Your task to perform on an android device: change keyboard looks Image 0: 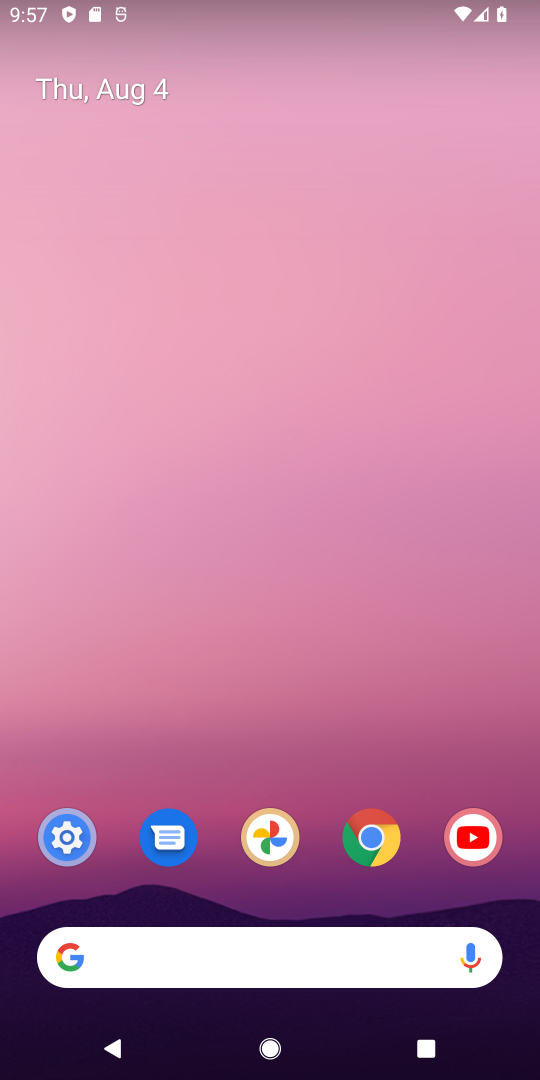
Step 0: press home button
Your task to perform on an android device: change keyboard looks Image 1: 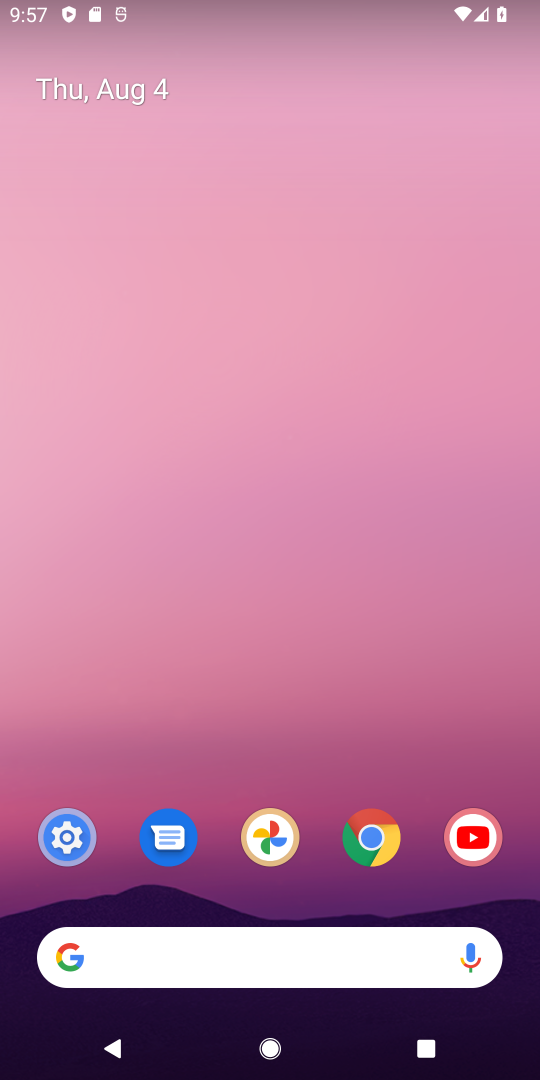
Step 1: drag from (318, 895) to (348, 33)
Your task to perform on an android device: change keyboard looks Image 2: 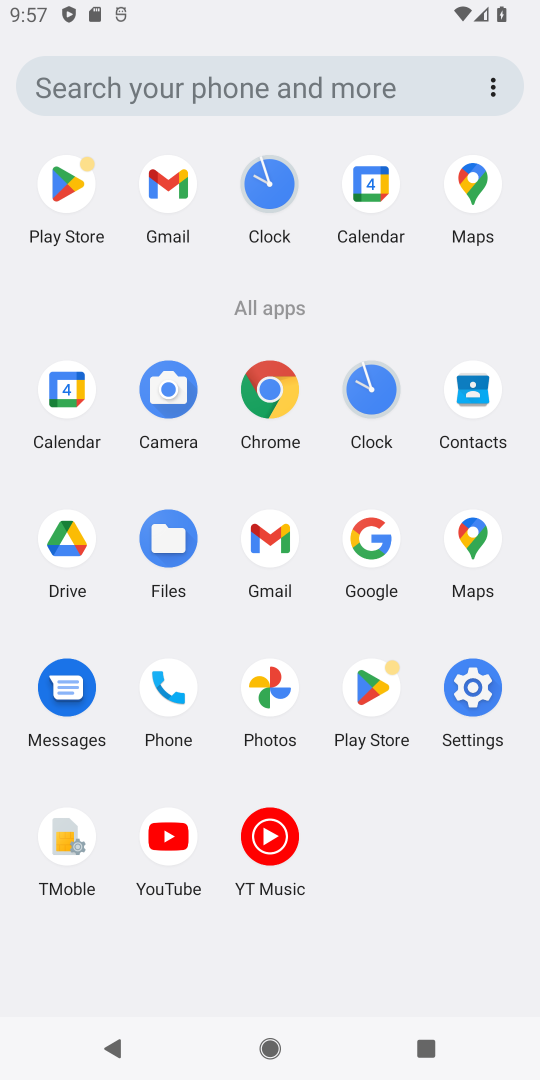
Step 2: click (468, 681)
Your task to perform on an android device: change keyboard looks Image 3: 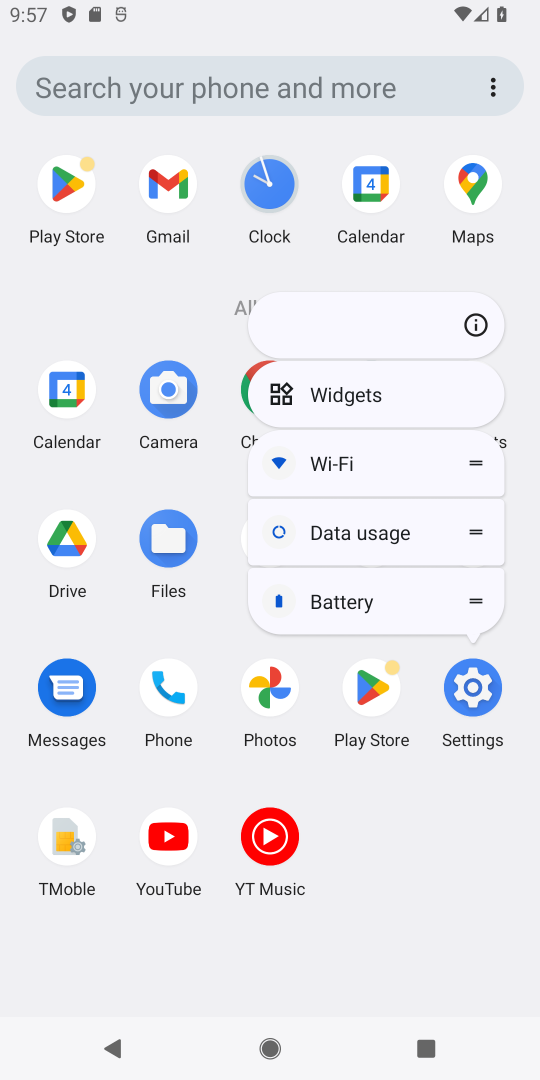
Step 3: click (480, 678)
Your task to perform on an android device: change keyboard looks Image 4: 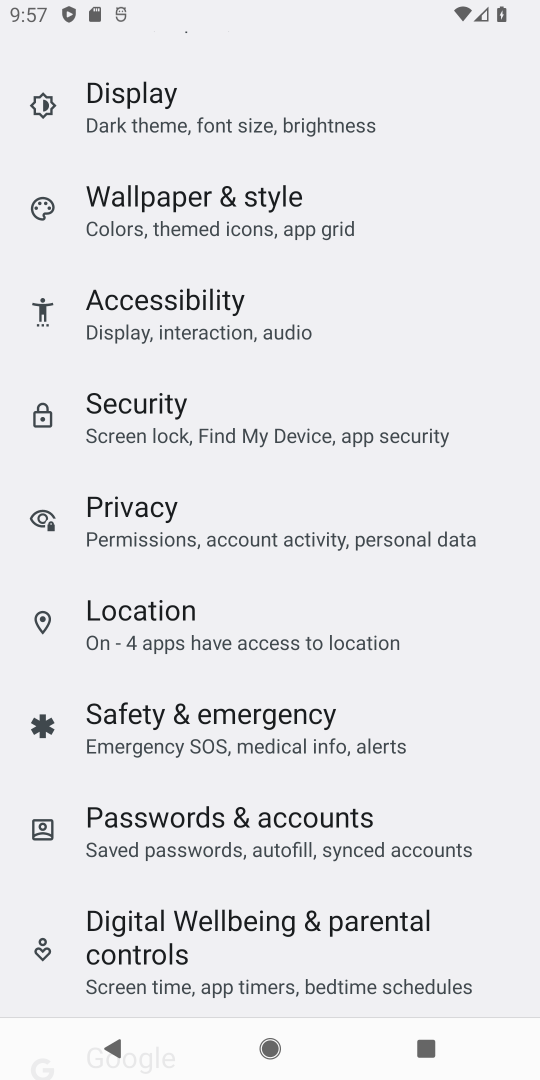
Step 4: drag from (247, 929) to (225, 200)
Your task to perform on an android device: change keyboard looks Image 5: 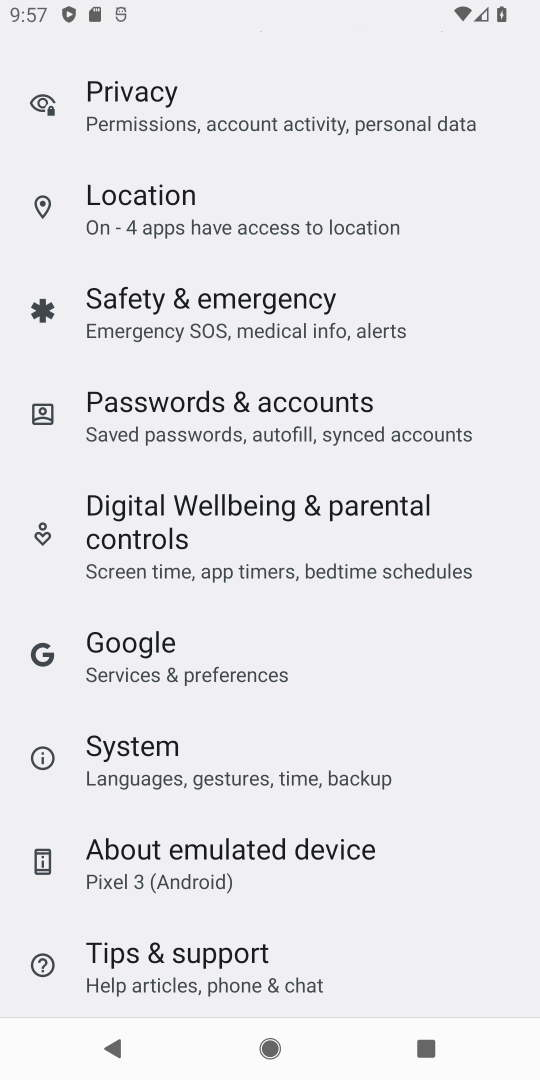
Step 5: click (189, 752)
Your task to perform on an android device: change keyboard looks Image 6: 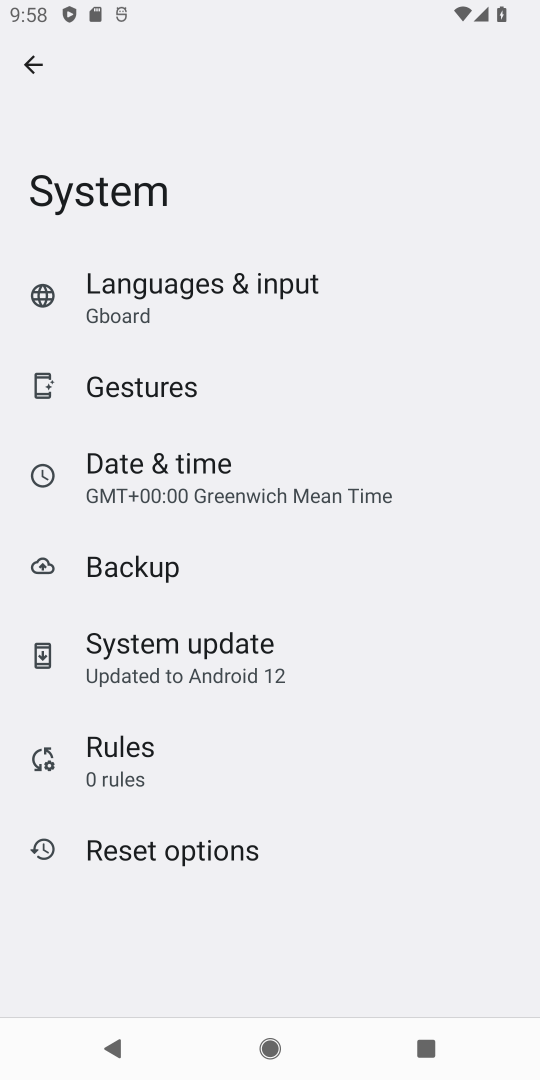
Step 6: click (141, 305)
Your task to perform on an android device: change keyboard looks Image 7: 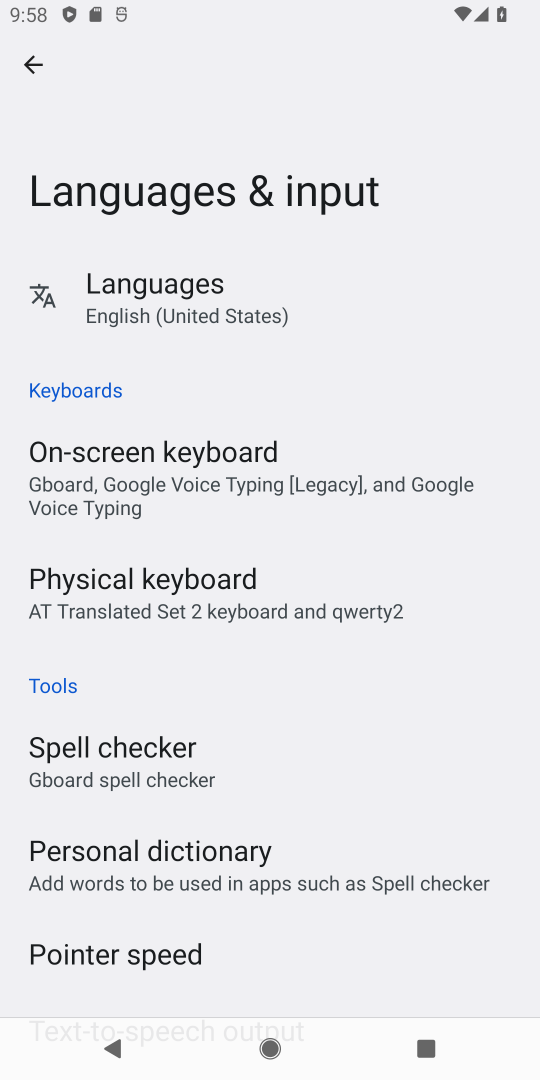
Step 7: click (143, 445)
Your task to perform on an android device: change keyboard looks Image 8: 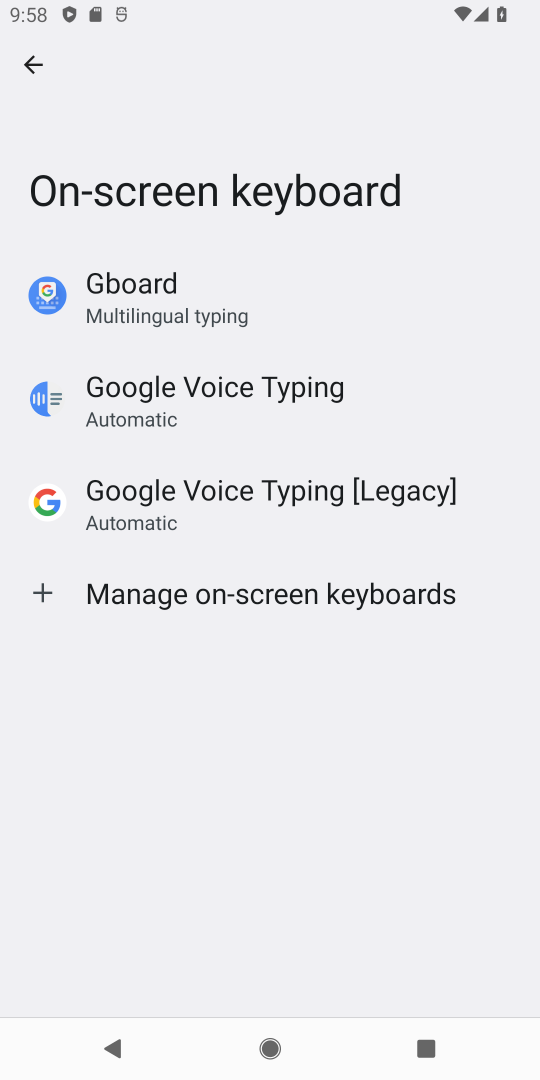
Step 8: click (155, 294)
Your task to perform on an android device: change keyboard looks Image 9: 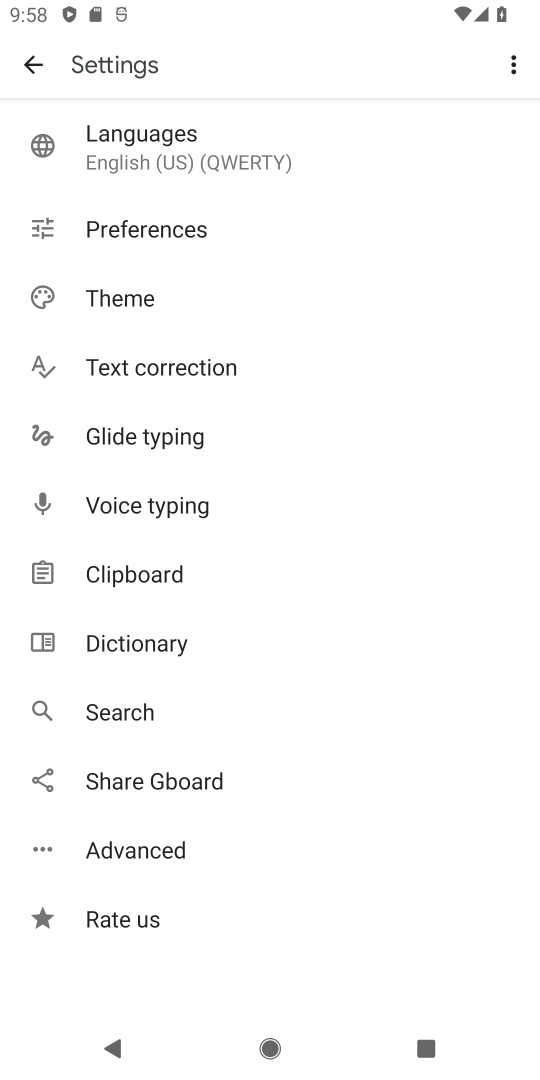
Step 9: click (149, 283)
Your task to perform on an android device: change keyboard looks Image 10: 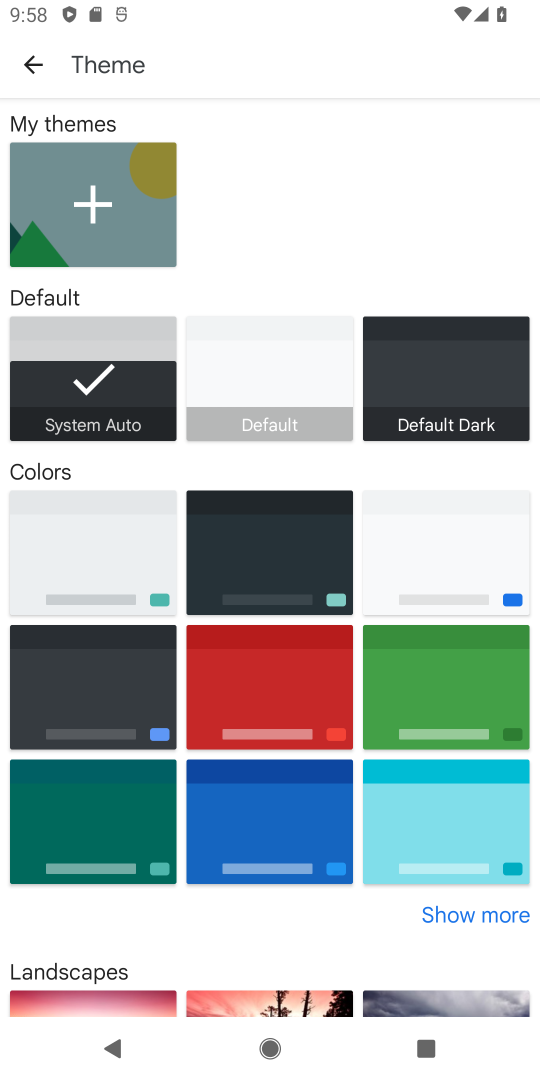
Step 10: click (104, 818)
Your task to perform on an android device: change keyboard looks Image 11: 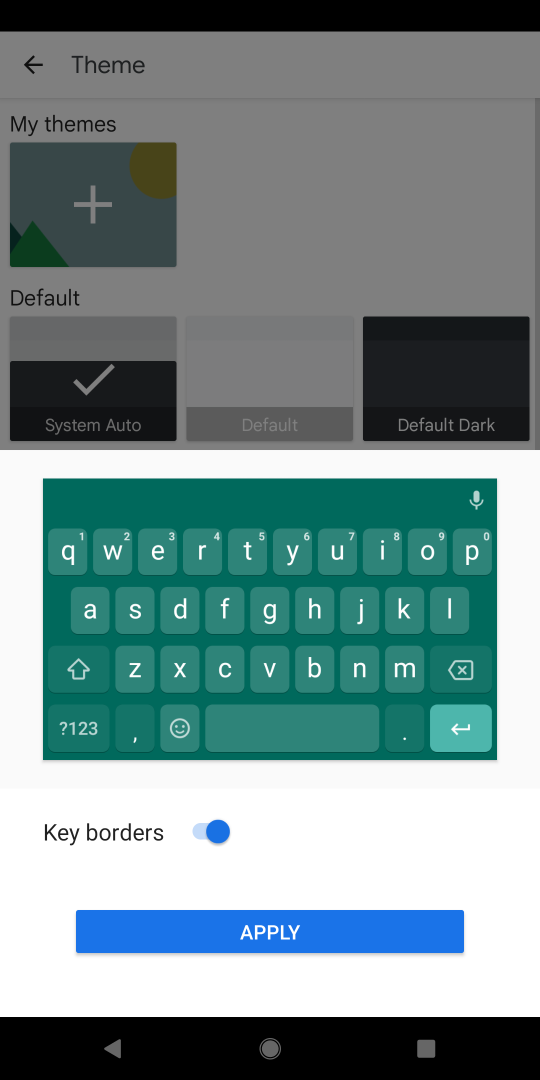
Step 11: click (207, 822)
Your task to perform on an android device: change keyboard looks Image 12: 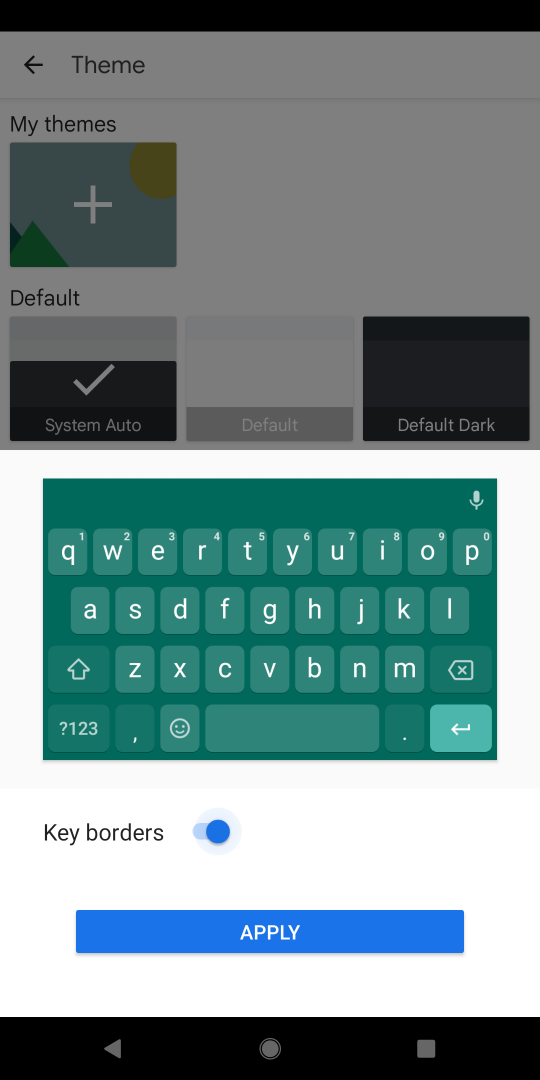
Step 12: click (271, 936)
Your task to perform on an android device: change keyboard looks Image 13: 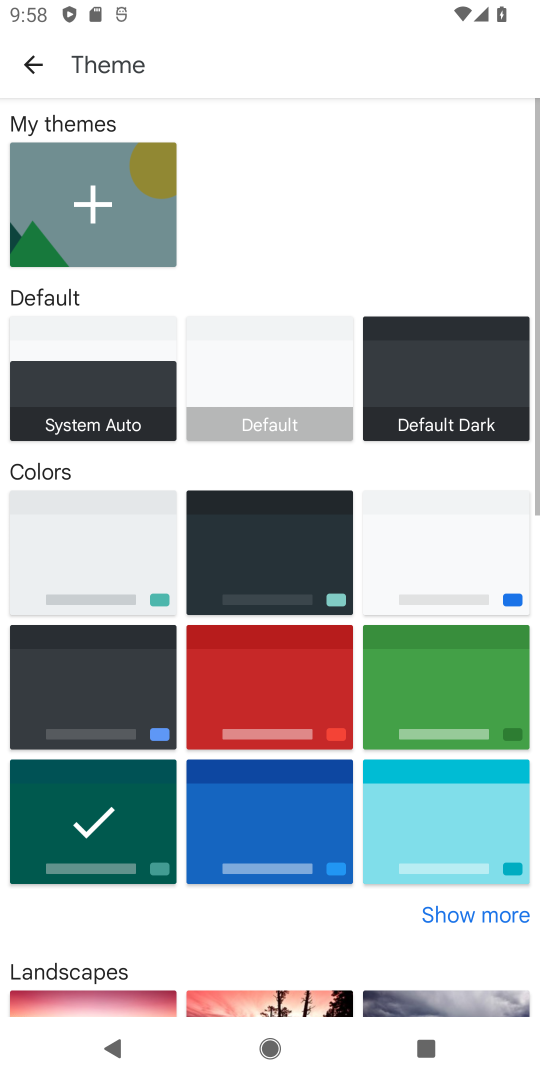
Step 13: task complete